Your task to perform on an android device: Open display settings Image 0: 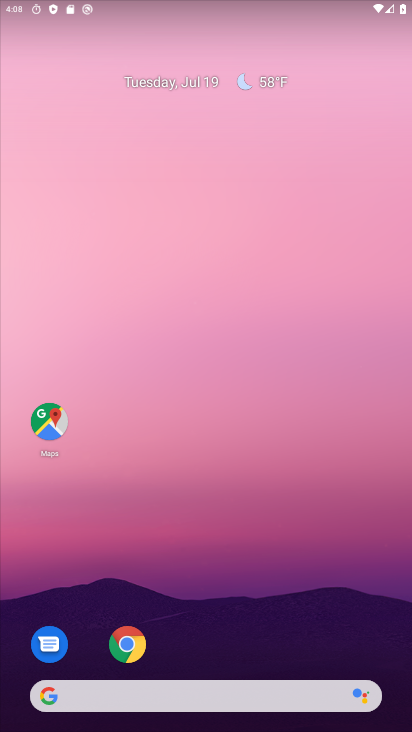
Step 0: drag from (246, 390) to (269, 88)
Your task to perform on an android device: Open display settings Image 1: 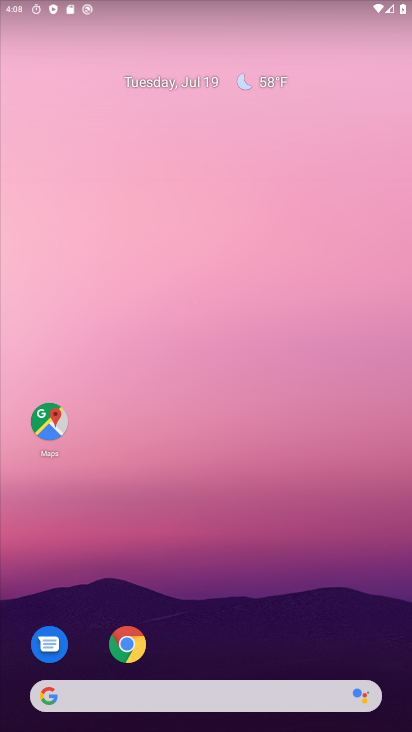
Step 1: drag from (308, 615) to (247, 61)
Your task to perform on an android device: Open display settings Image 2: 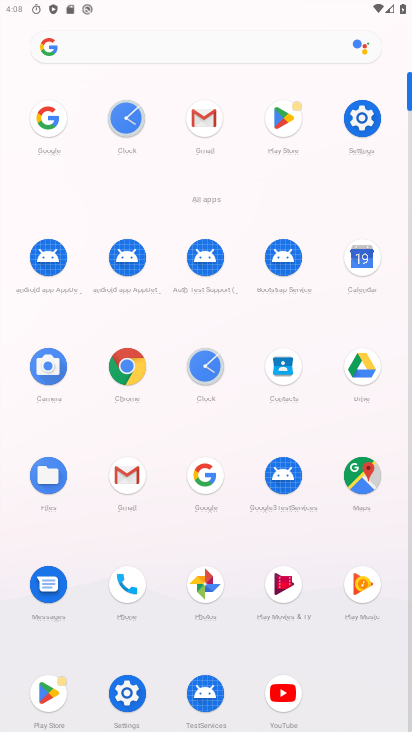
Step 2: click (364, 119)
Your task to perform on an android device: Open display settings Image 3: 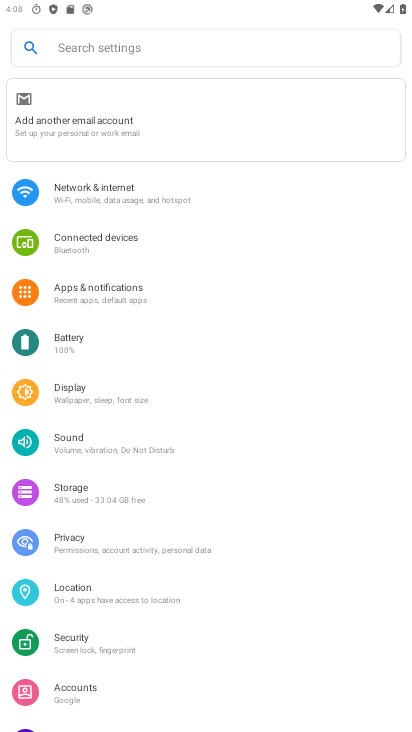
Step 3: click (103, 388)
Your task to perform on an android device: Open display settings Image 4: 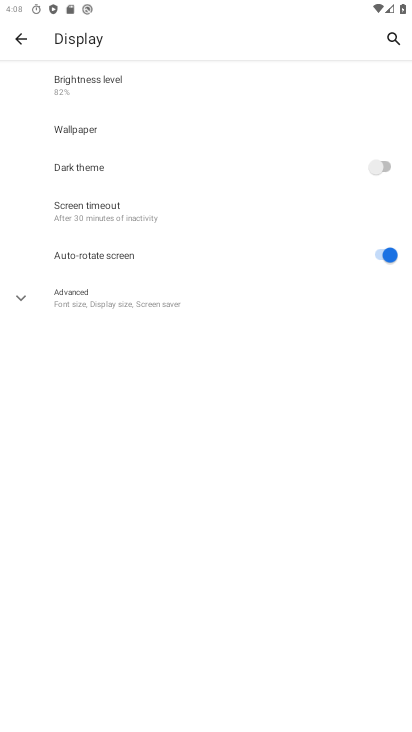
Step 4: task complete